Your task to perform on an android device: What's the weather today? Image 0: 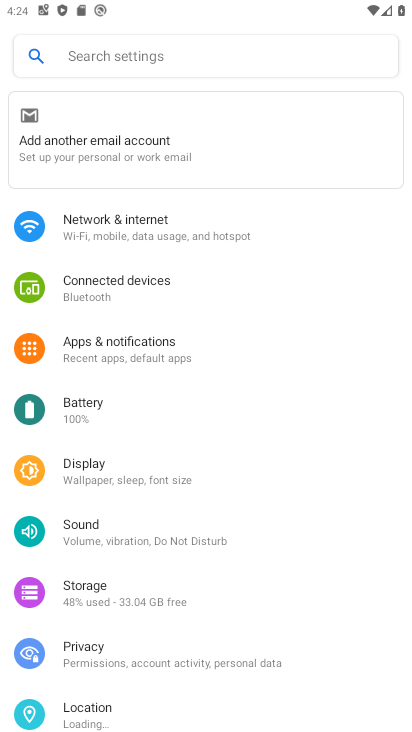
Step 0: press back button
Your task to perform on an android device: What's the weather today? Image 1: 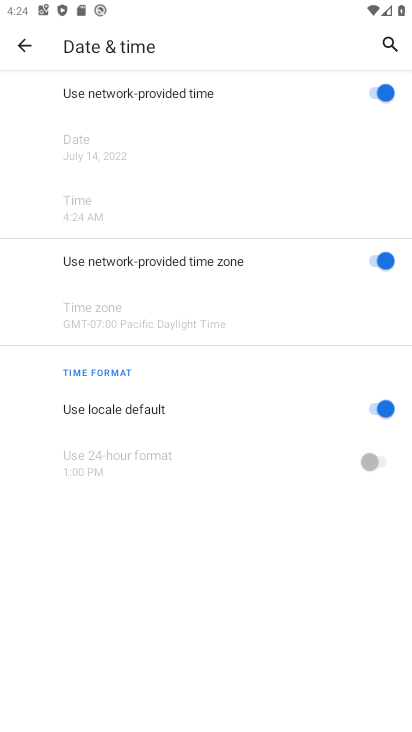
Step 1: press back button
Your task to perform on an android device: What's the weather today? Image 2: 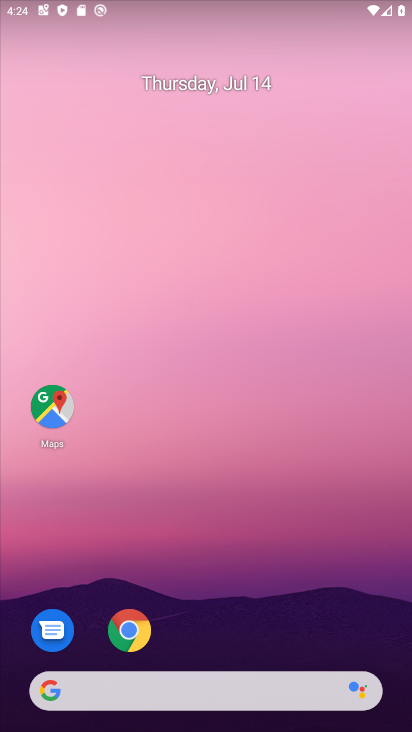
Step 2: click (188, 683)
Your task to perform on an android device: What's the weather today? Image 3: 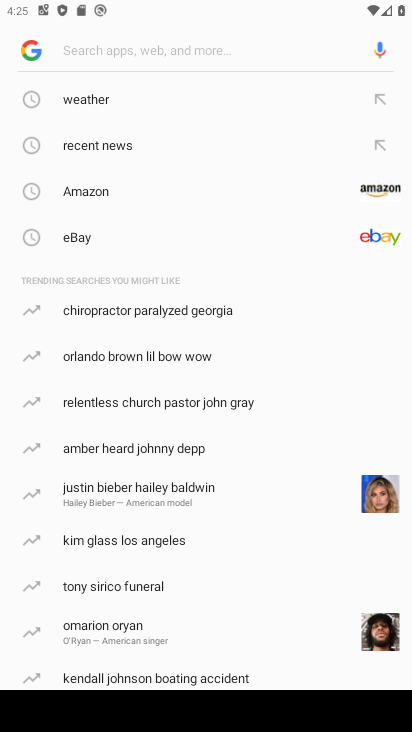
Step 3: click (73, 97)
Your task to perform on an android device: What's the weather today? Image 4: 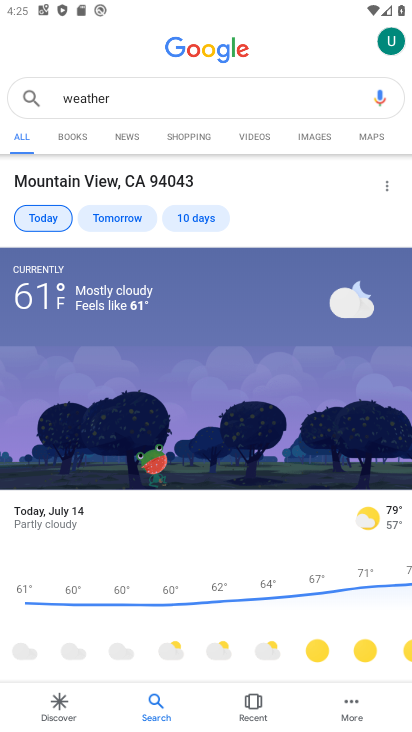
Step 4: click (58, 209)
Your task to perform on an android device: What's the weather today? Image 5: 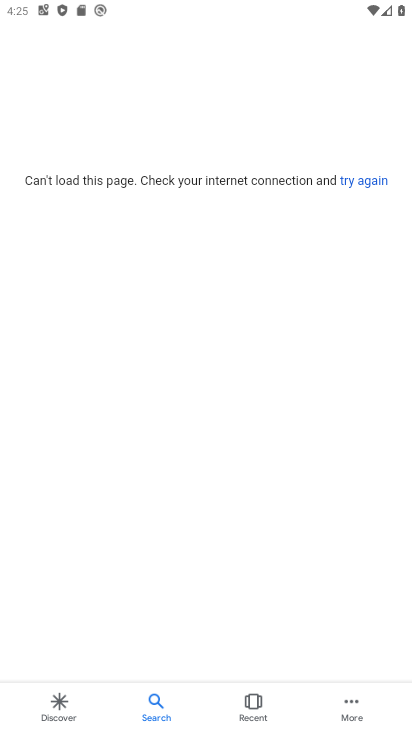
Step 5: task complete